Your task to perform on an android device: toggle location history Image 0: 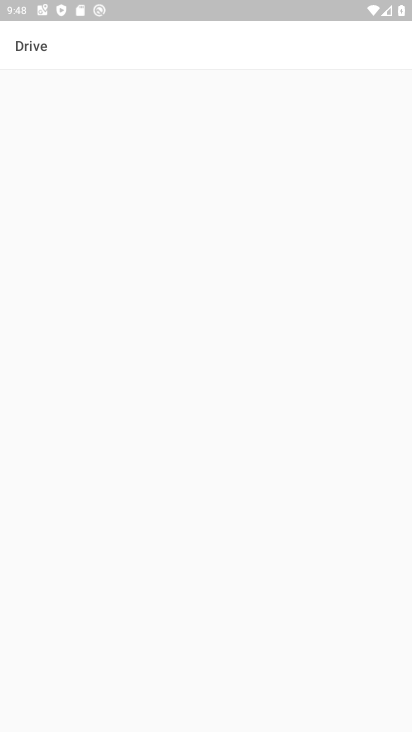
Step 0: press home button
Your task to perform on an android device: toggle location history Image 1: 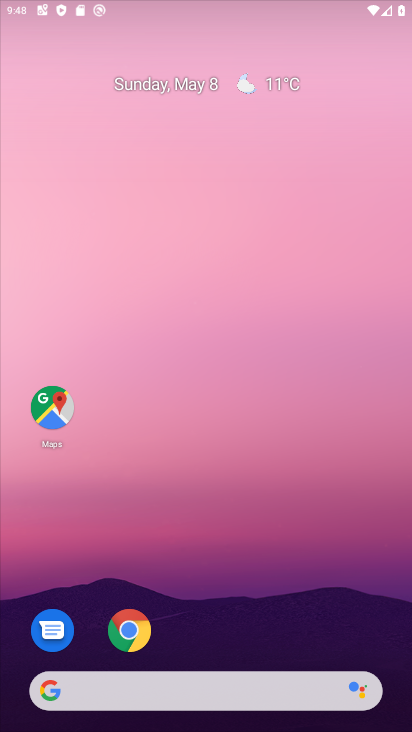
Step 1: drag from (368, 639) to (208, 10)
Your task to perform on an android device: toggle location history Image 2: 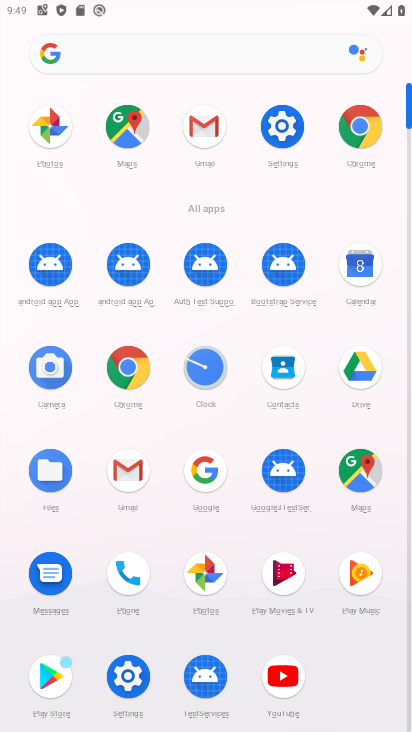
Step 2: click (285, 134)
Your task to perform on an android device: toggle location history Image 3: 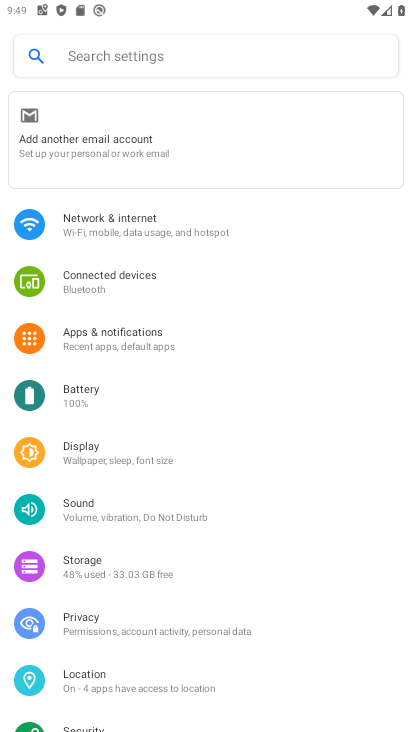
Step 3: click (93, 675)
Your task to perform on an android device: toggle location history Image 4: 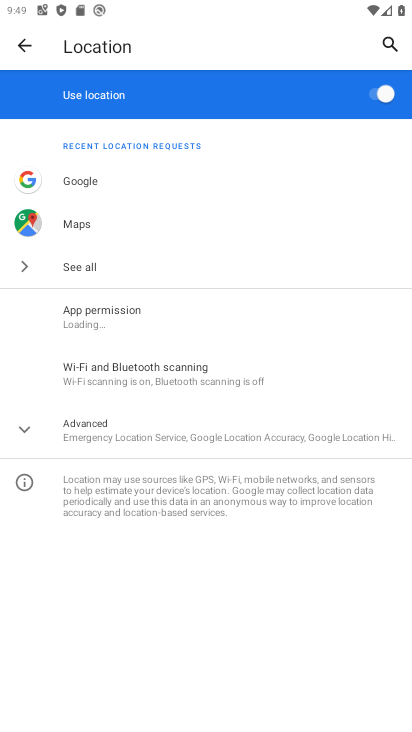
Step 4: click (113, 422)
Your task to perform on an android device: toggle location history Image 5: 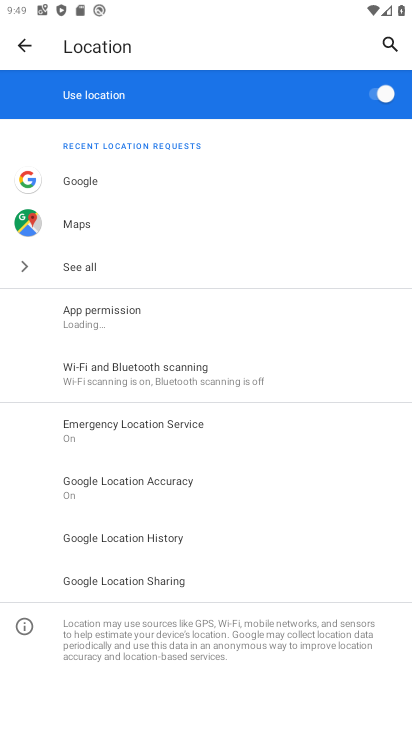
Step 5: click (151, 544)
Your task to perform on an android device: toggle location history Image 6: 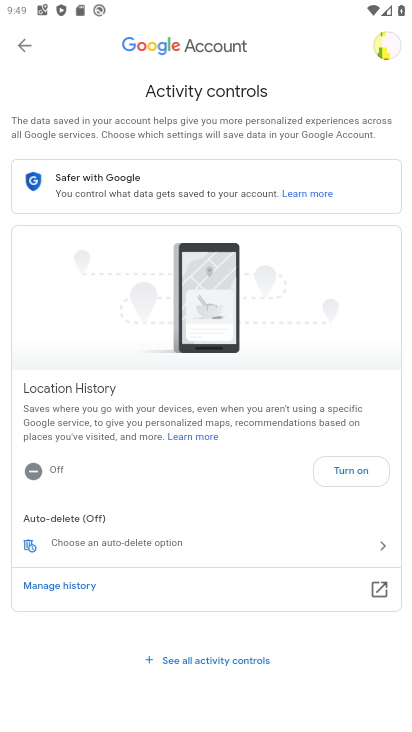
Step 6: click (336, 467)
Your task to perform on an android device: toggle location history Image 7: 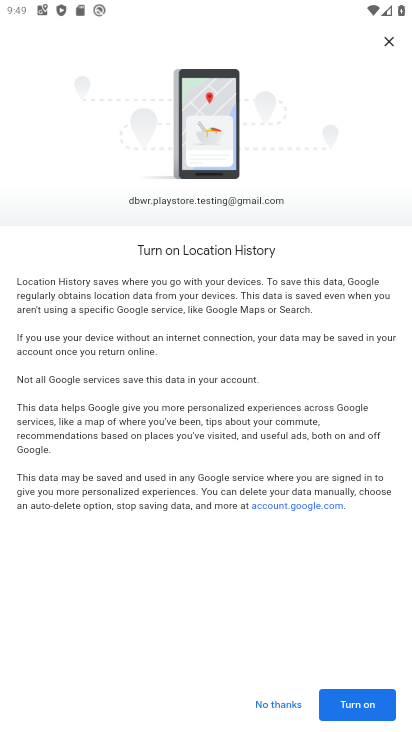
Step 7: task complete